Your task to perform on an android device: change the clock display to analog Image 0: 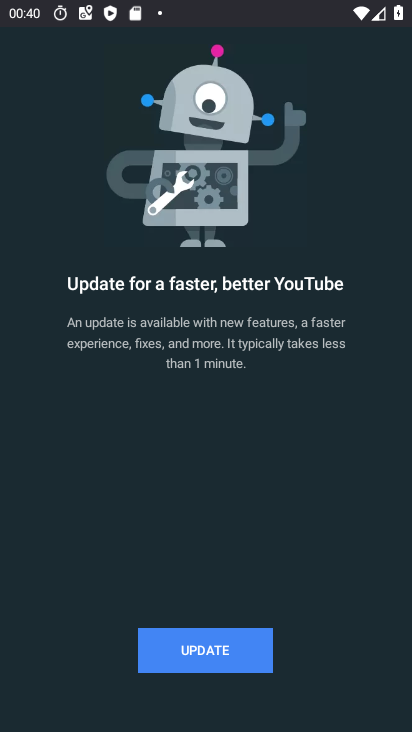
Step 0: press home button
Your task to perform on an android device: change the clock display to analog Image 1: 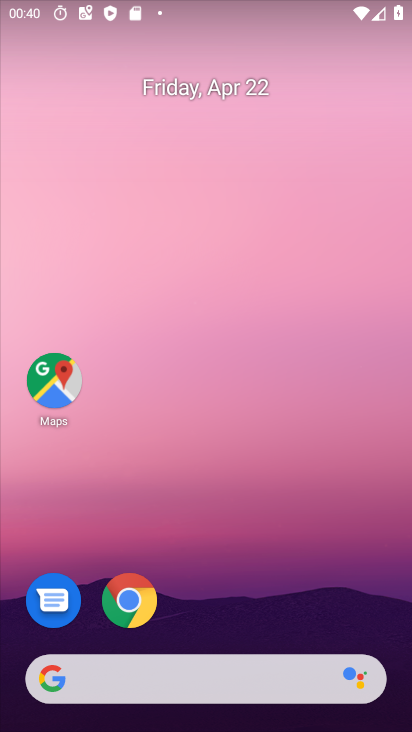
Step 1: drag from (203, 580) to (234, 96)
Your task to perform on an android device: change the clock display to analog Image 2: 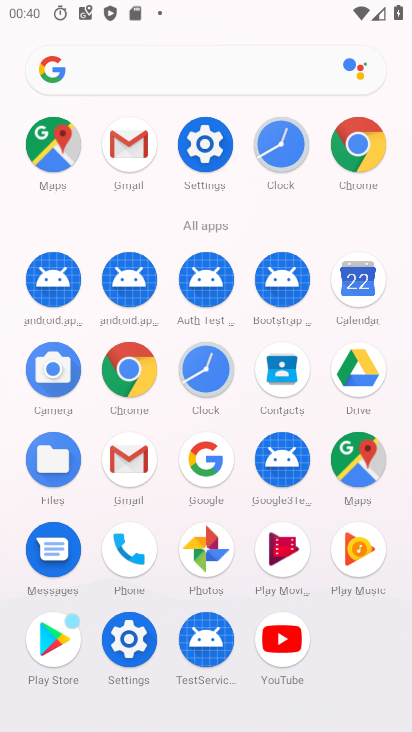
Step 2: click (281, 135)
Your task to perform on an android device: change the clock display to analog Image 3: 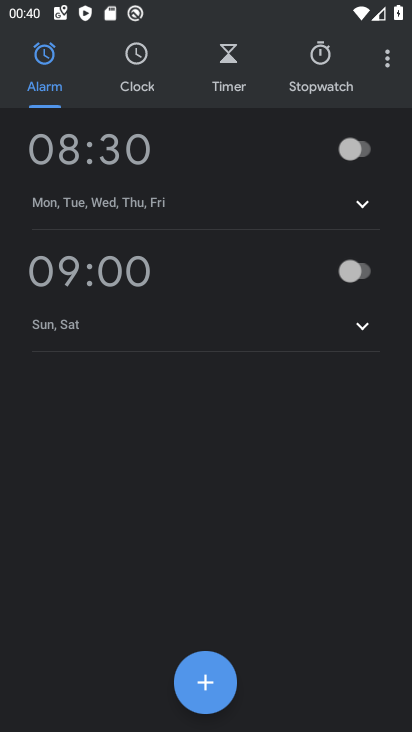
Step 3: click (387, 60)
Your task to perform on an android device: change the clock display to analog Image 4: 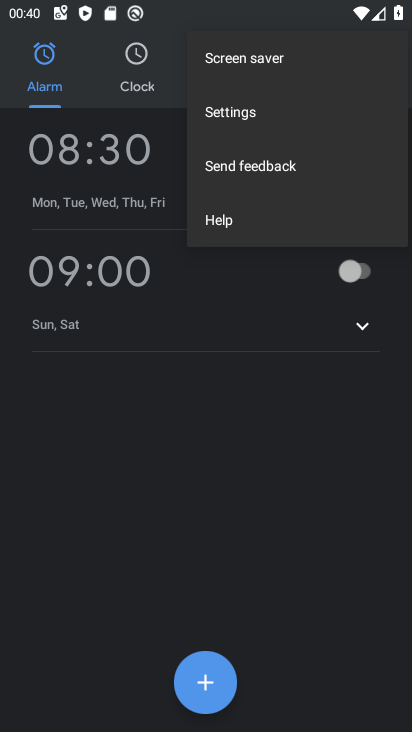
Step 4: click (262, 116)
Your task to perform on an android device: change the clock display to analog Image 5: 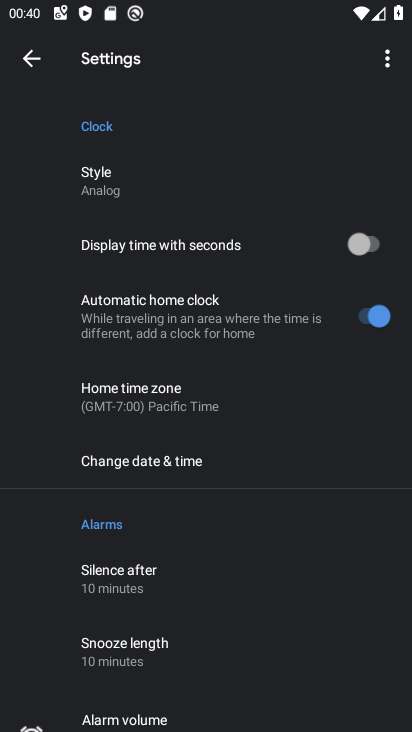
Step 5: click (144, 184)
Your task to perform on an android device: change the clock display to analog Image 6: 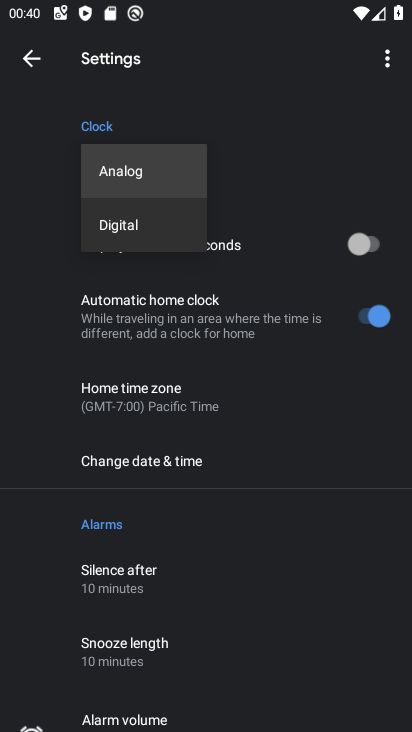
Step 6: task complete